Your task to perform on an android device: Turn off the flashlight Image 0: 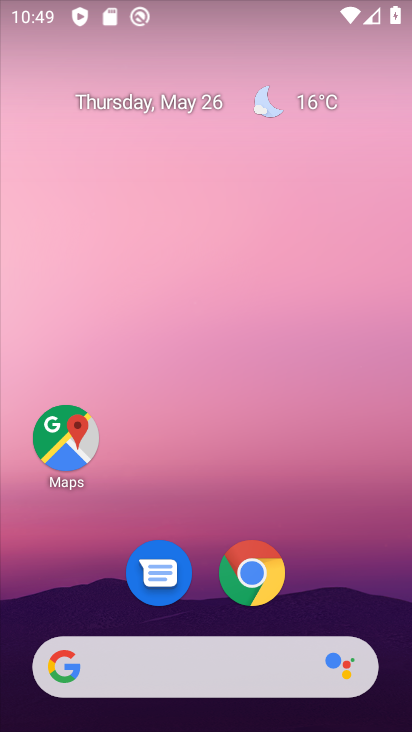
Step 0: drag from (357, 11) to (183, 646)
Your task to perform on an android device: Turn off the flashlight Image 1: 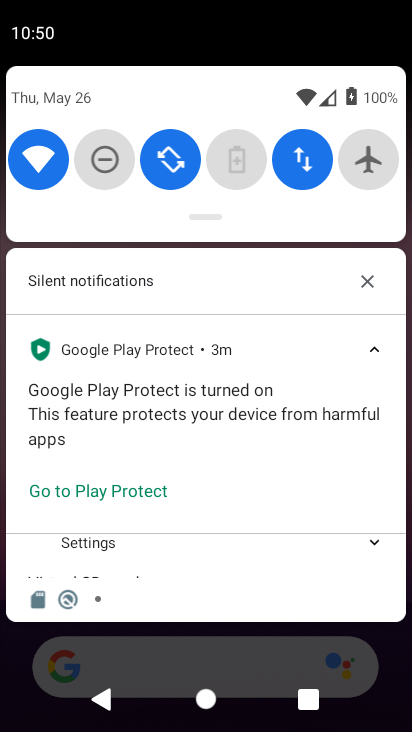
Step 1: drag from (226, 191) to (137, 578)
Your task to perform on an android device: Turn off the flashlight Image 2: 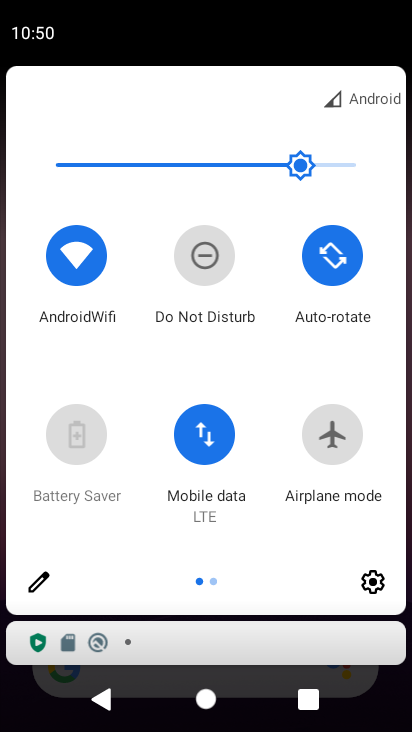
Step 2: click (25, 586)
Your task to perform on an android device: Turn off the flashlight Image 3: 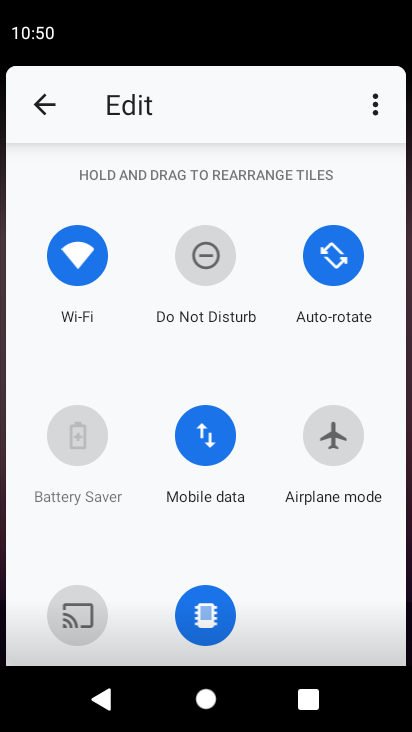
Step 3: task complete